Your task to perform on an android device: read, delete, or share a saved page in the chrome app Image 0: 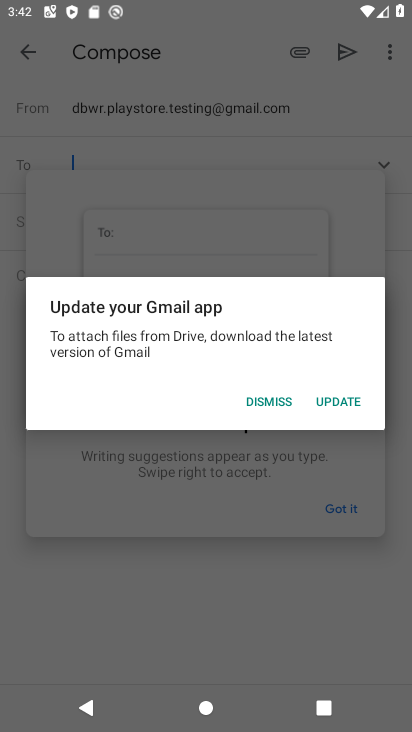
Step 0: press home button
Your task to perform on an android device: read, delete, or share a saved page in the chrome app Image 1: 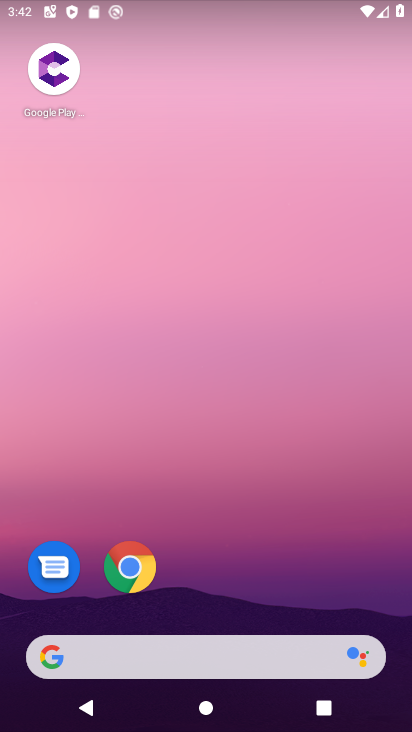
Step 1: click (145, 567)
Your task to perform on an android device: read, delete, or share a saved page in the chrome app Image 2: 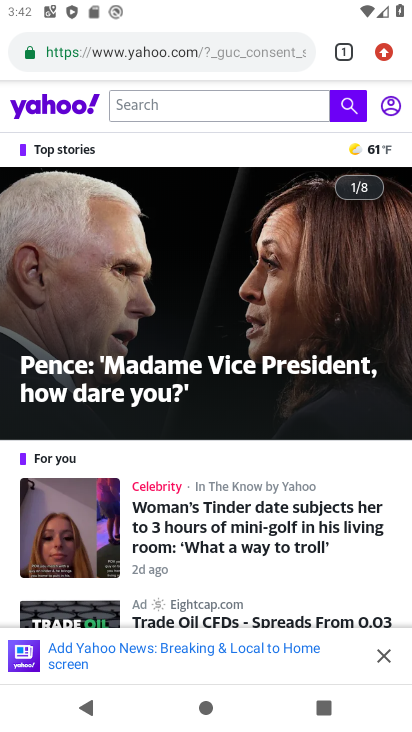
Step 2: click (381, 47)
Your task to perform on an android device: read, delete, or share a saved page in the chrome app Image 3: 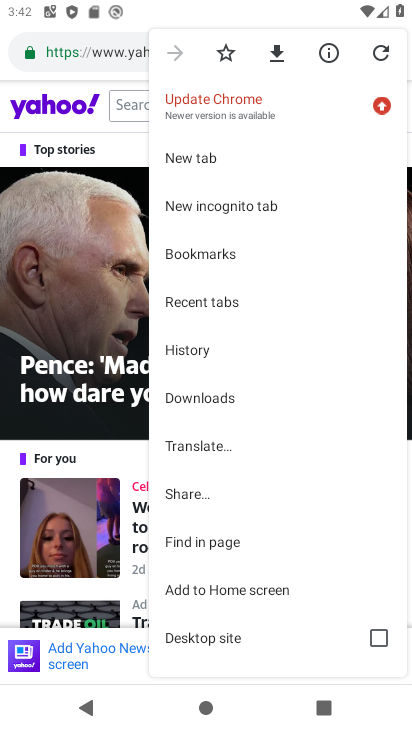
Step 3: click (227, 394)
Your task to perform on an android device: read, delete, or share a saved page in the chrome app Image 4: 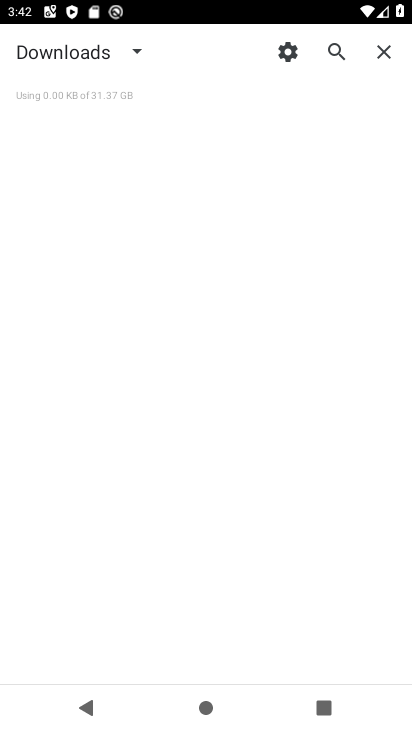
Step 4: click (134, 49)
Your task to perform on an android device: read, delete, or share a saved page in the chrome app Image 5: 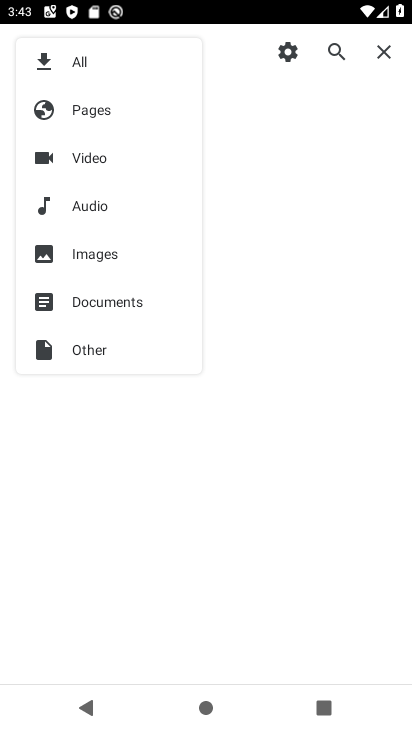
Step 5: click (113, 113)
Your task to perform on an android device: read, delete, or share a saved page in the chrome app Image 6: 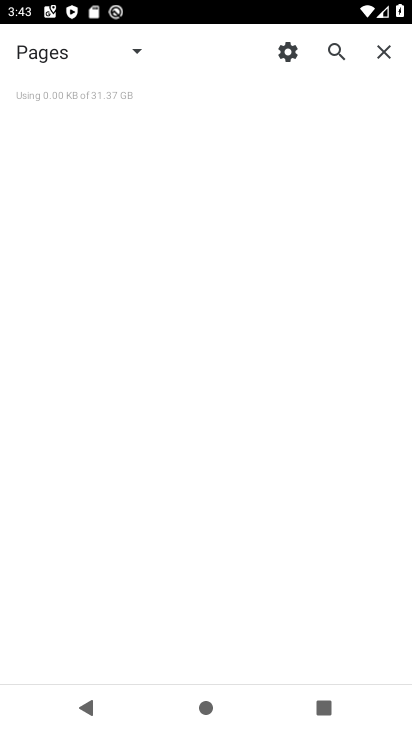
Step 6: task complete